Your task to perform on an android device: What is the news today? Image 0: 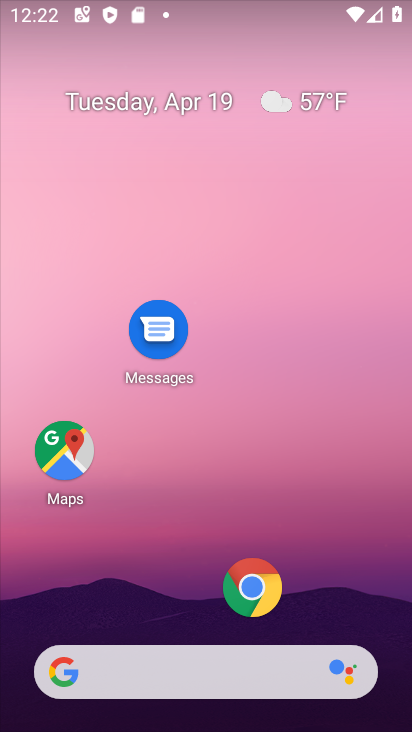
Step 0: drag from (204, 246) to (211, 122)
Your task to perform on an android device: What is the news today? Image 1: 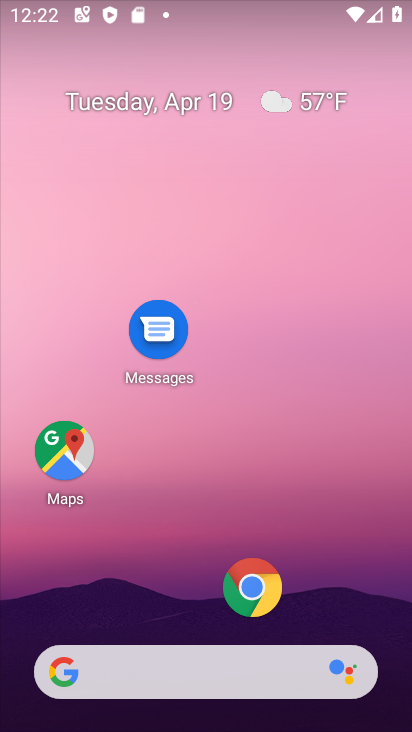
Step 1: click (225, 184)
Your task to perform on an android device: What is the news today? Image 2: 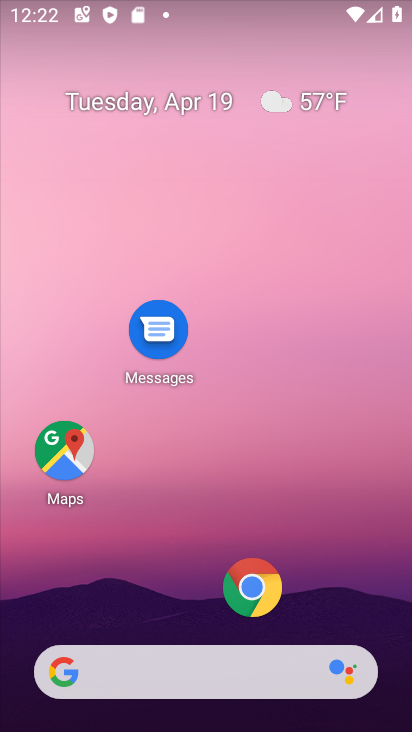
Step 2: drag from (134, 503) to (174, 73)
Your task to perform on an android device: What is the news today? Image 3: 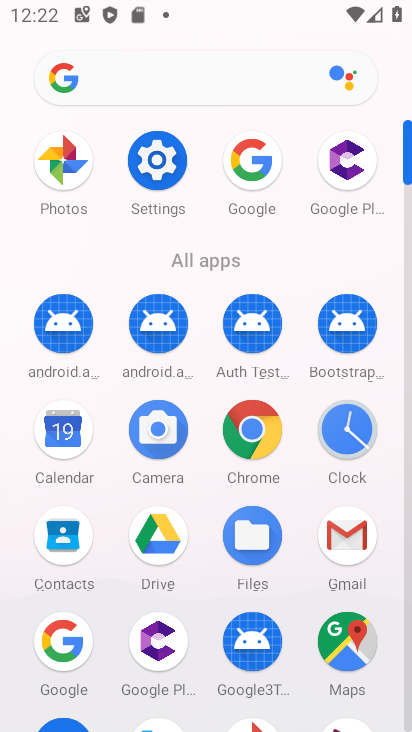
Step 3: click (62, 633)
Your task to perform on an android device: What is the news today? Image 4: 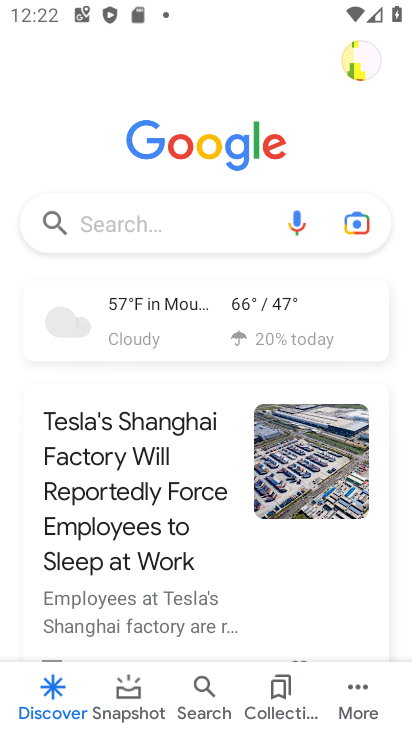
Step 4: click (152, 225)
Your task to perform on an android device: What is the news today? Image 5: 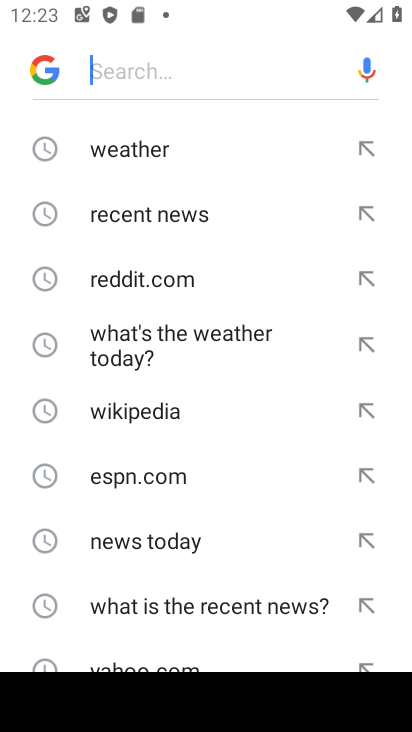
Step 5: drag from (215, 548) to (182, 163)
Your task to perform on an android device: What is the news today? Image 6: 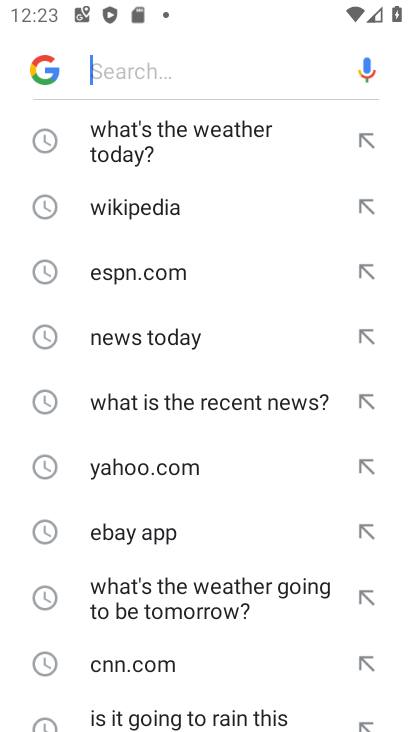
Step 6: click (146, 336)
Your task to perform on an android device: What is the news today? Image 7: 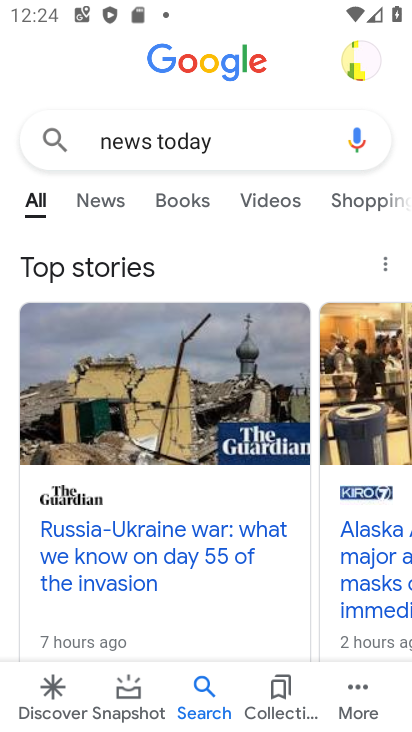
Step 7: task complete